Your task to perform on an android device: Go to battery settings Image 0: 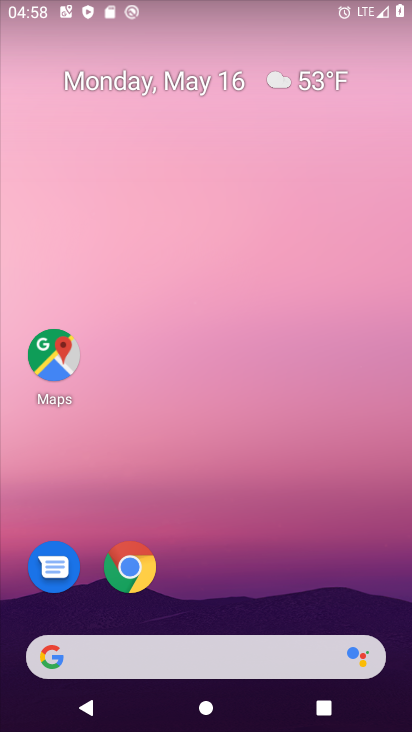
Step 0: drag from (207, 660) to (219, 78)
Your task to perform on an android device: Go to battery settings Image 1: 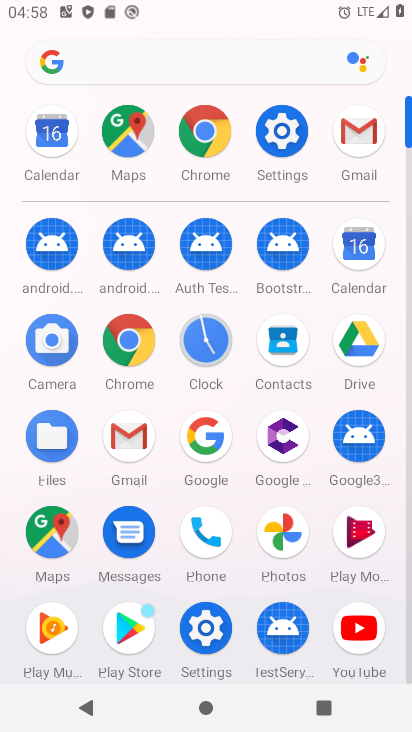
Step 1: click (291, 131)
Your task to perform on an android device: Go to battery settings Image 2: 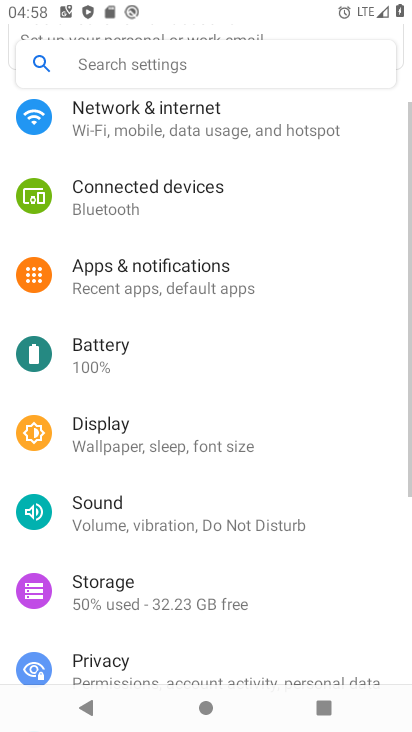
Step 2: drag from (230, 201) to (303, 558)
Your task to perform on an android device: Go to battery settings Image 3: 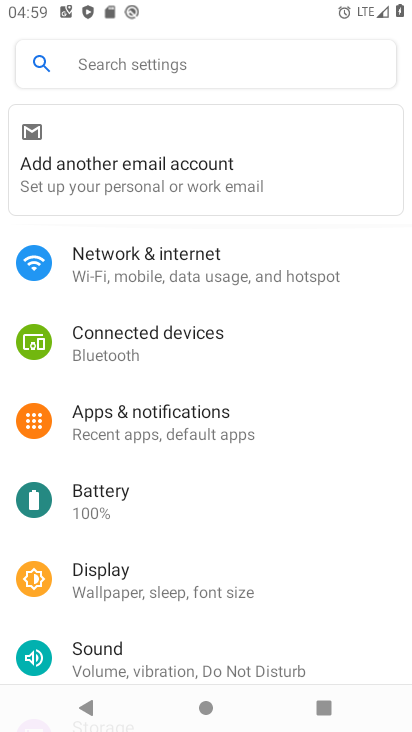
Step 3: click (187, 513)
Your task to perform on an android device: Go to battery settings Image 4: 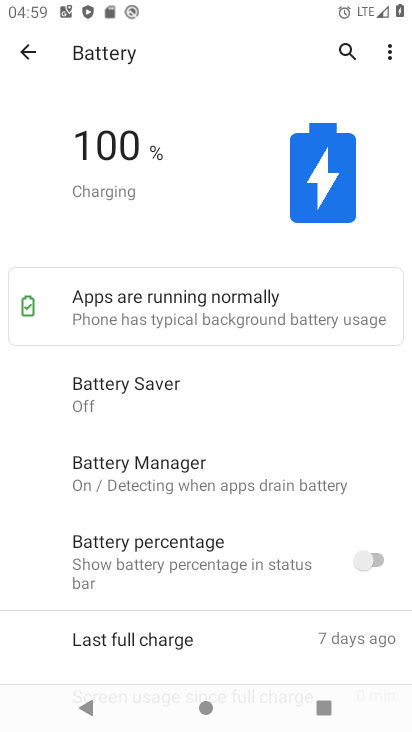
Step 4: task complete